Your task to perform on an android device: all mails in gmail Image 0: 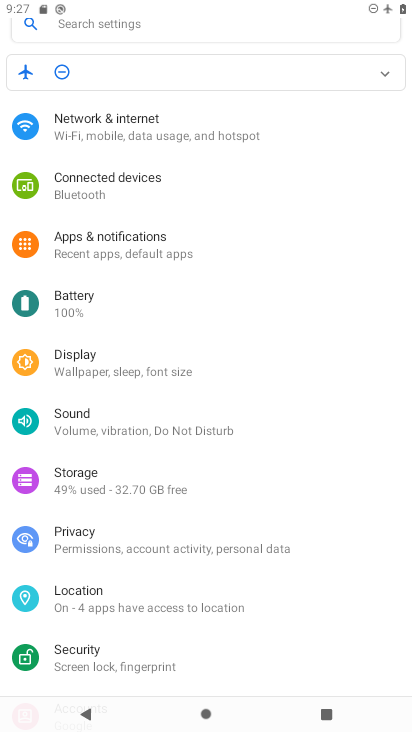
Step 0: press home button
Your task to perform on an android device: all mails in gmail Image 1: 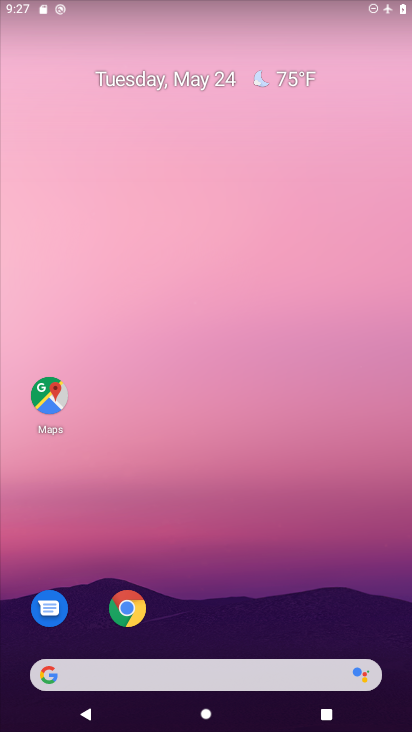
Step 1: drag from (258, 518) to (219, 4)
Your task to perform on an android device: all mails in gmail Image 2: 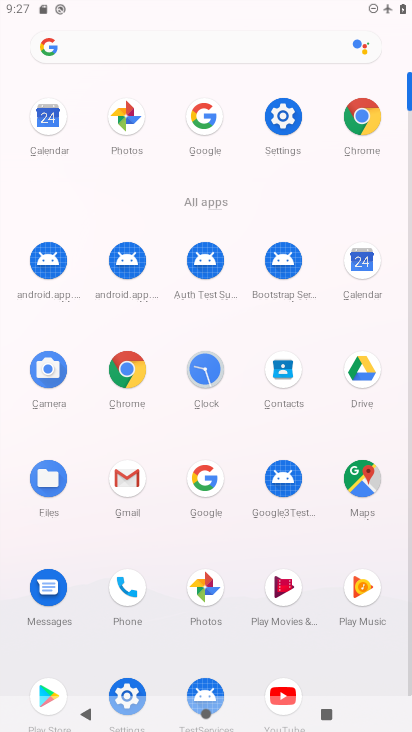
Step 2: click (121, 473)
Your task to perform on an android device: all mails in gmail Image 3: 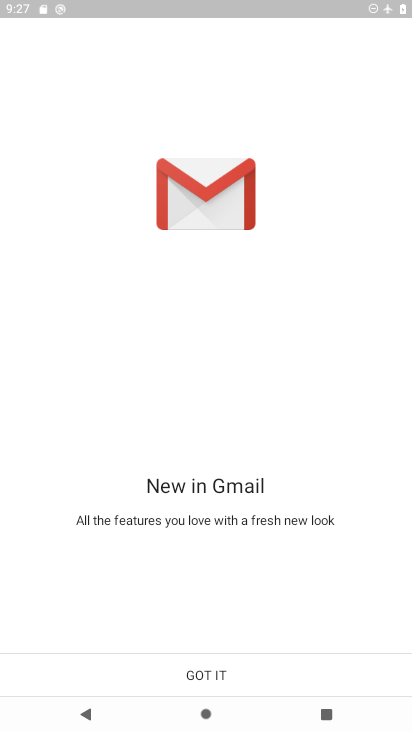
Step 3: click (219, 668)
Your task to perform on an android device: all mails in gmail Image 4: 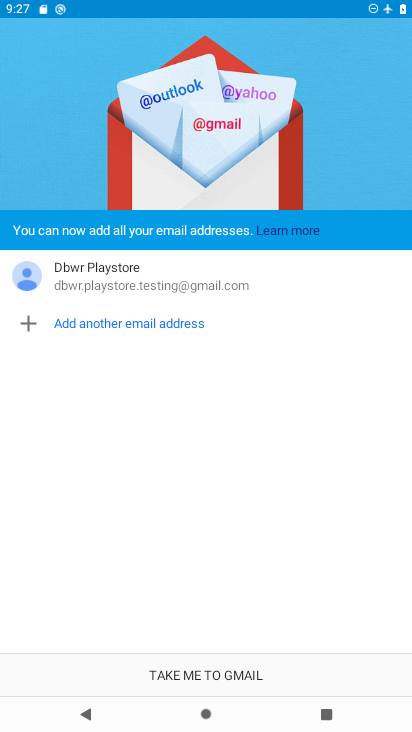
Step 4: click (213, 673)
Your task to perform on an android device: all mails in gmail Image 5: 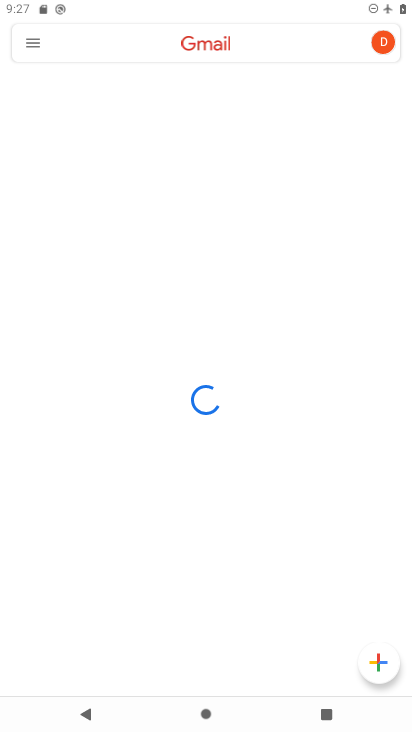
Step 5: click (34, 46)
Your task to perform on an android device: all mails in gmail Image 6: 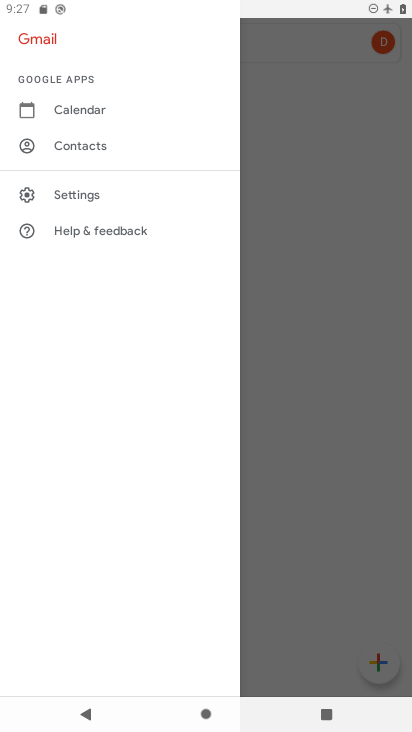
Step 6: click (87, 190)
Your task to perform on an android device: all mails in gmail Image 7: 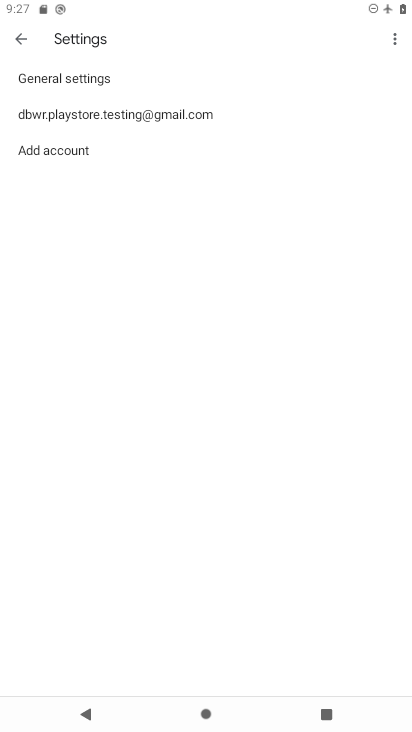
Step 7: click (12, 40)
Your task to perform on an android device: all mails in gmail Image 8: 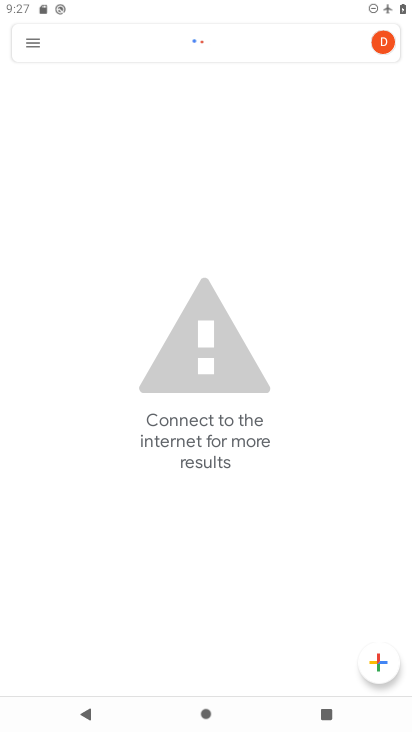
Step 8: click (35, 41)
Your task to perform on an android device: all mails in gmail Image 9: 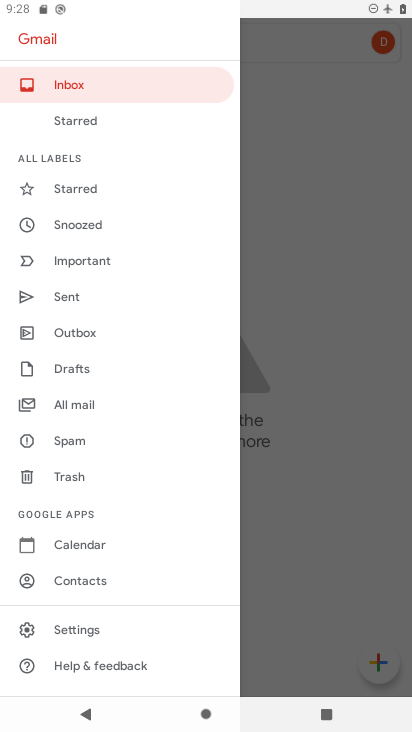
Step 9: click (81, 402)
Your task to perform on an android device: all mails in gmail Image 10: 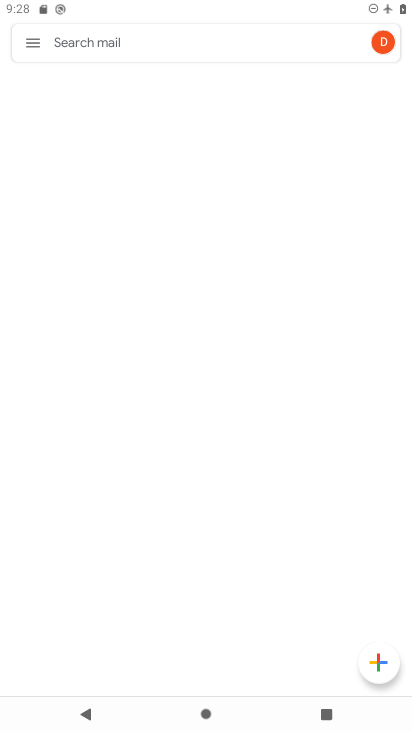
Step 10: task complete